Your task to perform on an android device: delete the emails in spam in the gmail app Image 0: 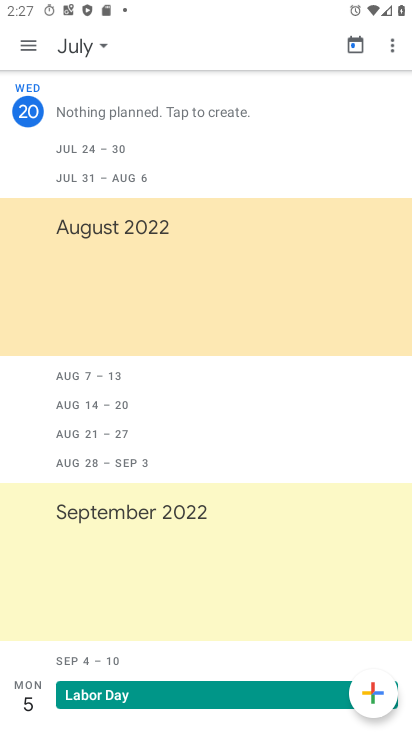
Step 0: press home button
Your task to perform on an android device: delete the emails in spam in the gmail app Image 1: 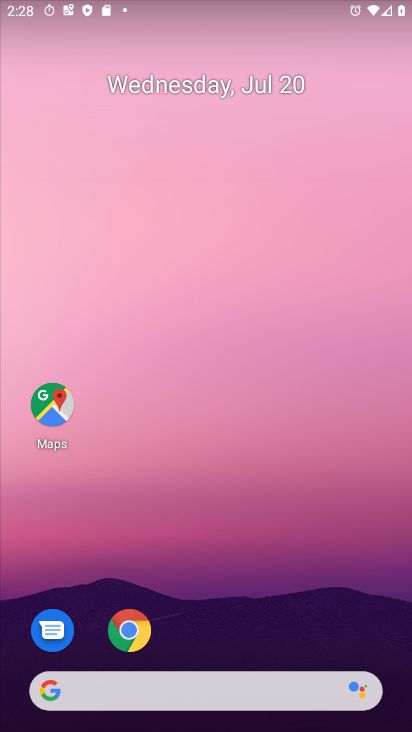
Step 1: drag from (171, 696) to (313, 220)
Your task to perform on an android device: delete the emails in spam in the gmail app Image 2: 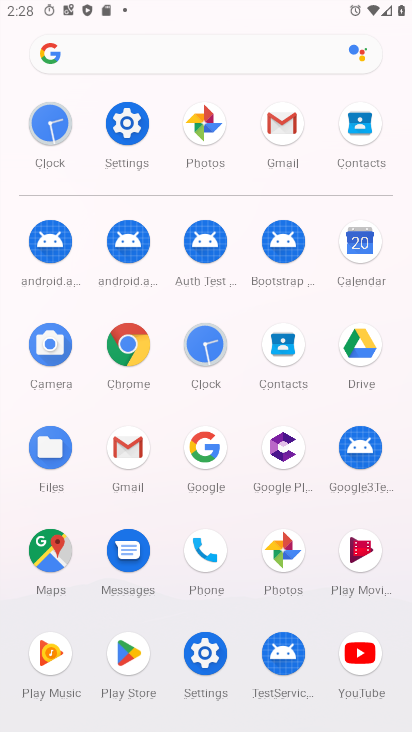
Step 2: click (280, 131)
Your task to perform on an android device: delete the emails in spam in the gmail app Image 3: 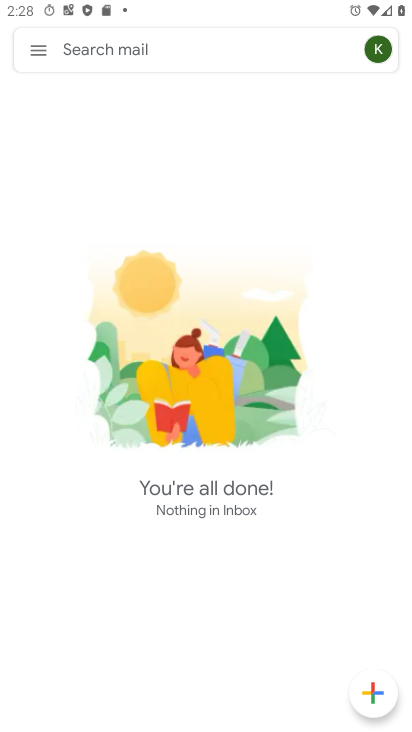
Step 3: click (34, 47)
Your task to perform on an android device: delete the emails in spam in the gmail app Image 4: 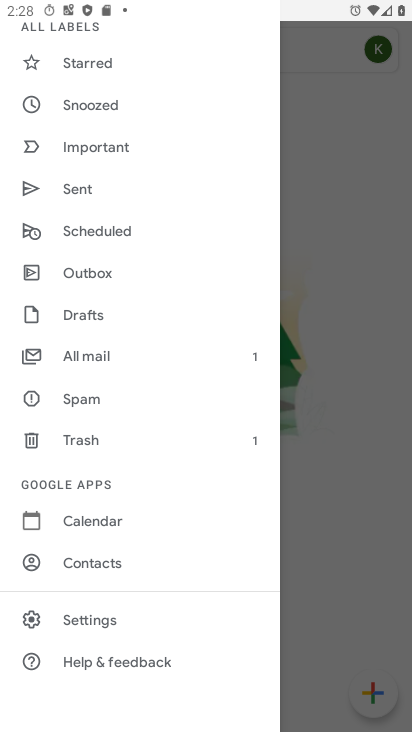
Step 4: click (98, 403)
Your task to perform on an android device: delete the emails in spam in the gmail app Image 5: 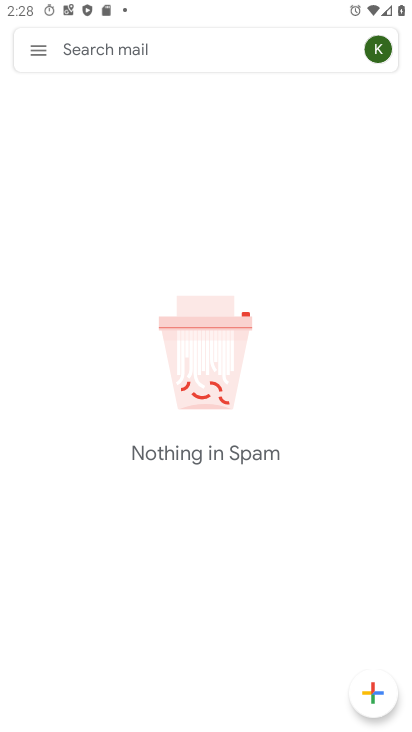
Step 5: task complete